Your task to perform on an android device: Go to CNN.com Image 0: 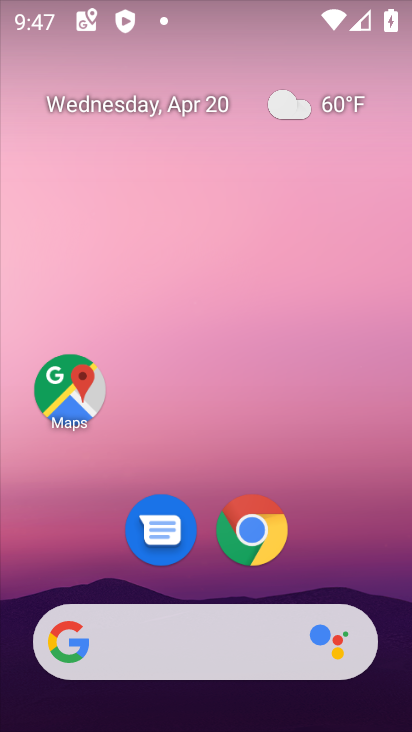
Step 0: click (216, 641)
Your task to perform on an android device: Go to CNN.com Image 1: 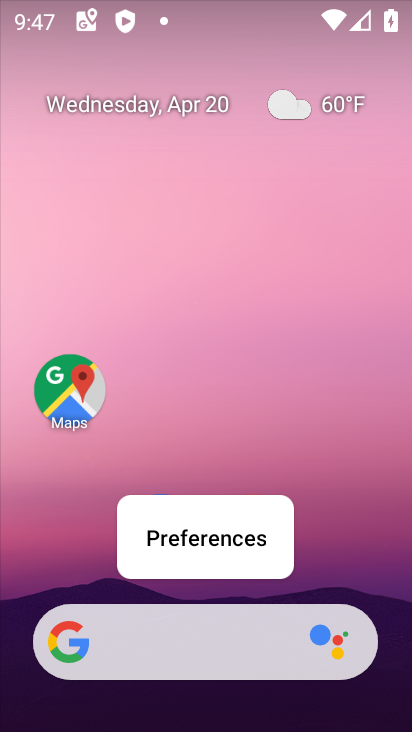
Step 1: click (216, 641)
Your task to perform on an android device: Go to CNN.com Image 2: 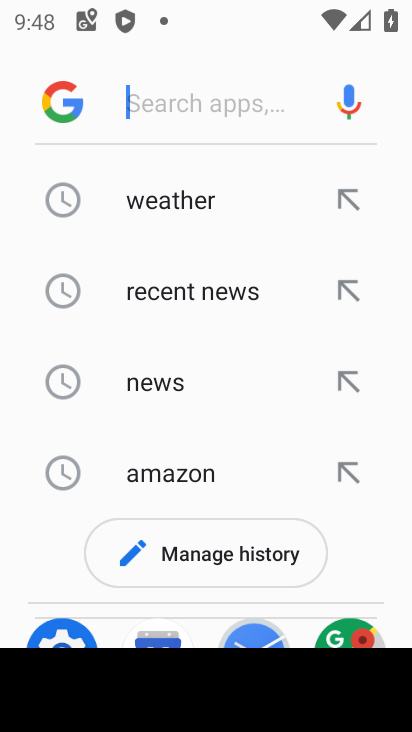
Step 2: type "cnn.com"
Your task to perform on an android device: Go to CNN.com Image 3: 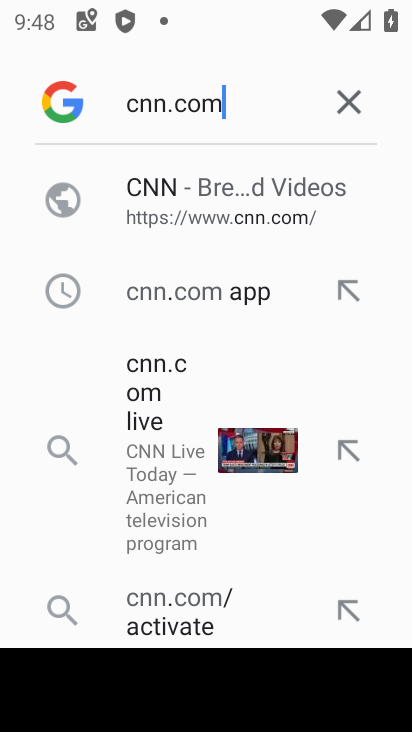
Step 3: click (219, 207)
Your task to perform on an android device: Go to CNN.com Image 4: 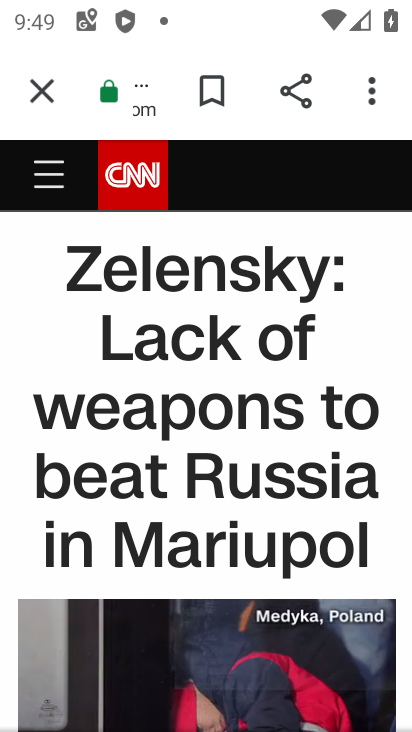
Step 4: task complete